Your task to perform on an android device: turn off translation in the chrome app Image 0: 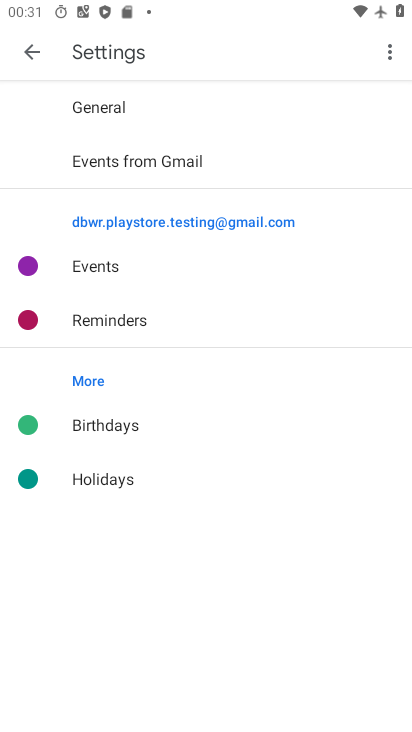
Step 0: press home button
Your task to perform on an android device: turn off translation in the chrome app Image 1: 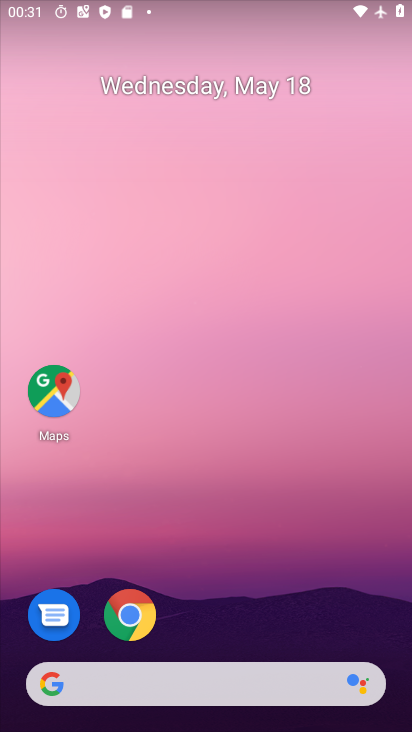
Step 1: click (141, 622)
Your task to perform on an android device: turn off translation in the chrome app Image 2: 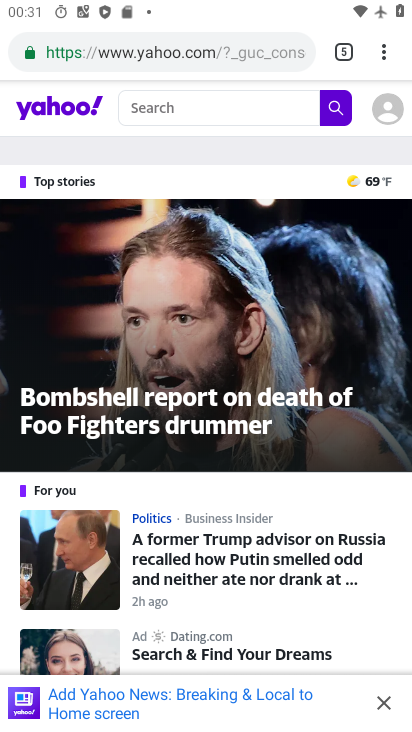
Step 2: drag from (383, 54) to (201, 623)
Your task to perform on an android device: turn off translation in the chrome app Image 3: 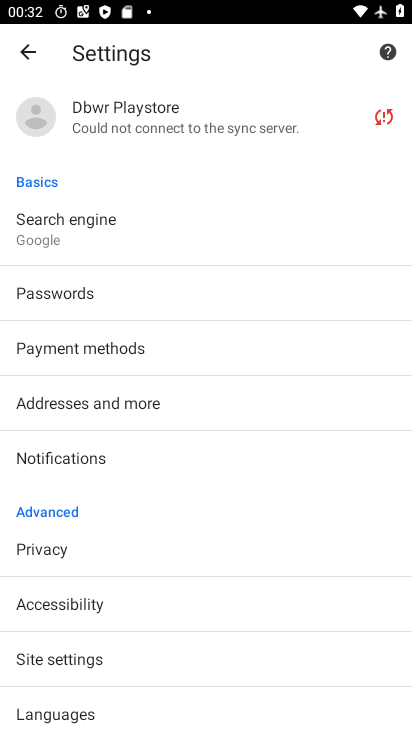
Step 3: drag from (166, 668) to (205, 461)
Your task to perform on an android device: turn off translation in the chrome app Image 4: 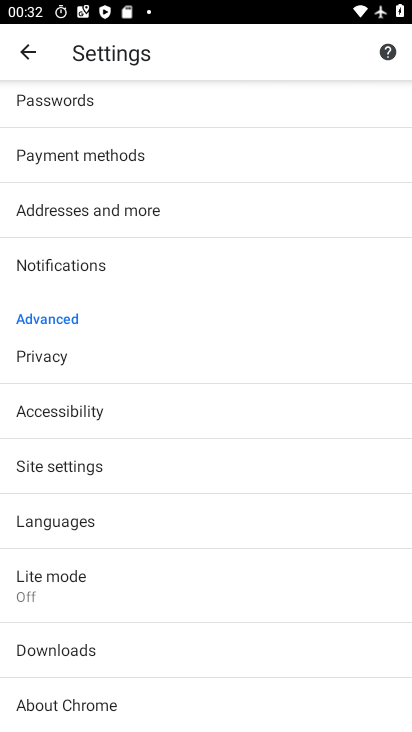
Step 4: click (133, 535)
Your task to perform on an android device: turn off translation in the chrome app Image 5: 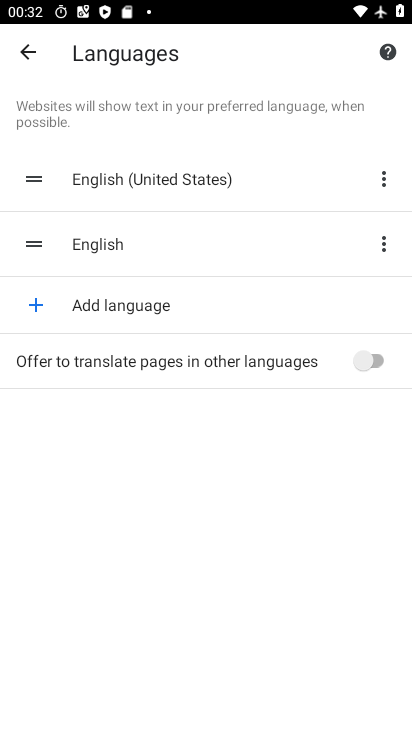
Step 5: click (367, 356)
Your task to perform on an android device: turn off translation in the chrome app Image 6: 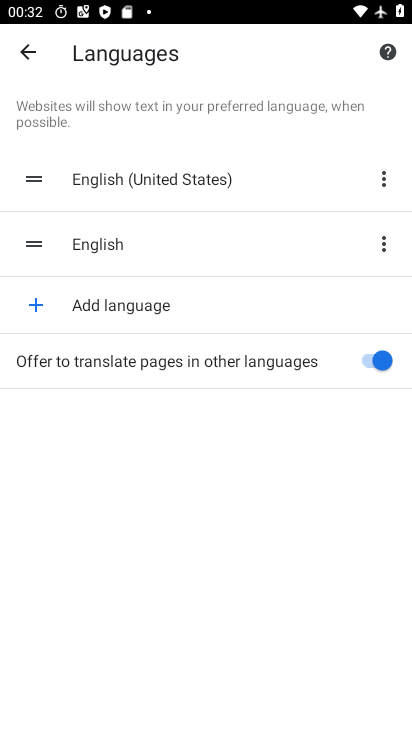
Step 6: click (359, 359)
Your task to perform on an android device: turn off translation in the chrome app Image 7: 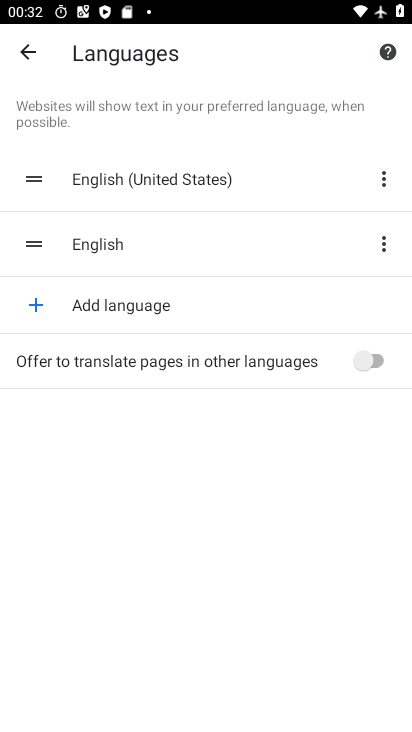
Step 7: task complete